Your task to perform on an android device: Clear the shopping cart on newegg.com. Add "usb-c to usb-a" to the cart on newegg.com Image 0: 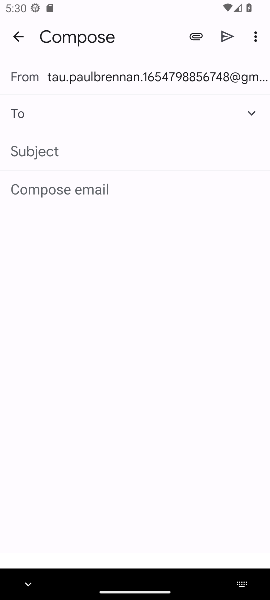
Step 0: press home button
Your task to perform on an android device: Clear the shopping cart on newegg.com. Add "usb-c to usb-a" to the cart on newegg.com Image 1: 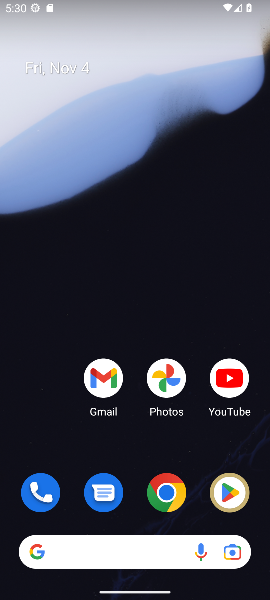
Step 1: drag from (133, 461) to (106, 59)
Your task to perform on an android device: Clear the shopping cart on newegg.com. Add "usb-c to usb-a" to the cart on newegg.com Image 2: 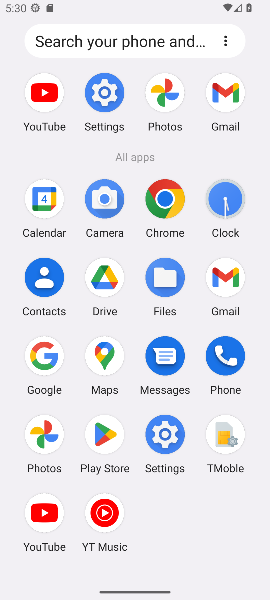
Step 2: click (163, 205)
Your task to perform on an android device: Clear the shopping cart on newegg.com. Add "usb-c to usb-a" to the cart on newegg.com Image 3: 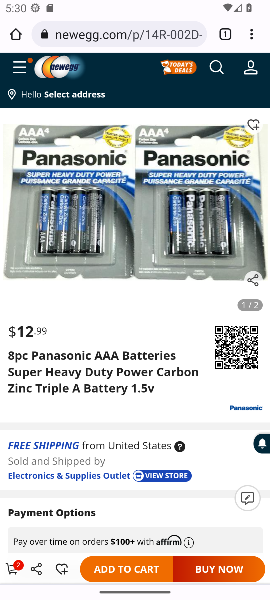
Step 3: click (150, 33)
Your task to perform on an android device: Clear the shopping cart on newegg.com. Add "usb-c to usb-a" to the cart on newegg.com Image 4: 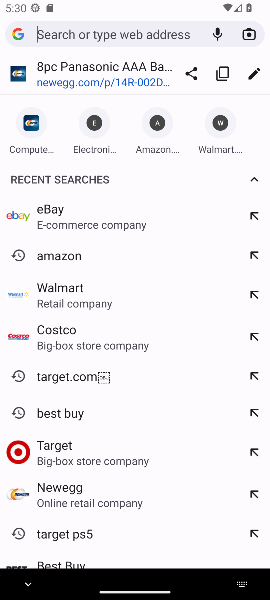
Step 4: type "newegg.com"
Your task to perform on an android device: Clear the shopping cart on newegg.com. Add "usb-c to usb-a" to the cart on newegg.com Image 5: 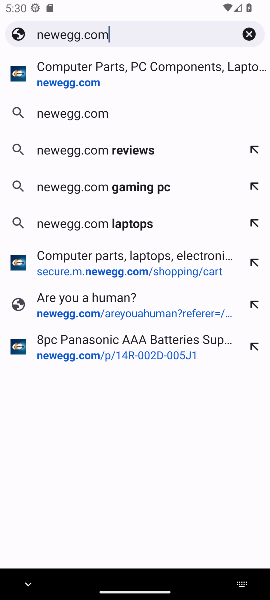
Step 5: press enter
Your task to perform on an android device: Clear the shopping cart on newegg.com. Add "usb-c to usb-a" to the cart on newegg.com Image 6: 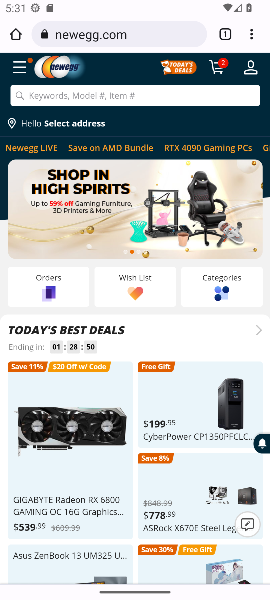
Step 6: click (225, 68)
Your task to perform on an android device: Clear the shopping cart on newegg.com. Add "usb-c to usb-a" to the cart on newegg.com Image 7: 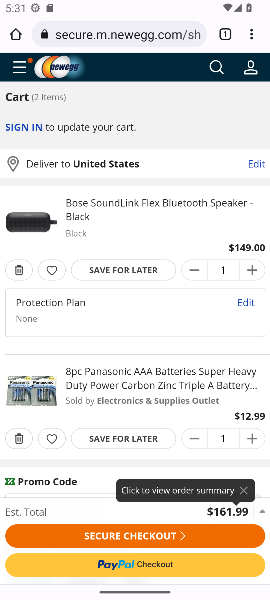
Step 7: click (15, 264)
Your task to perform on an android device: Clear the shopping cart on newegg.com. Add "usb-c to usb-a" to the cart on newegg.com Image 8: 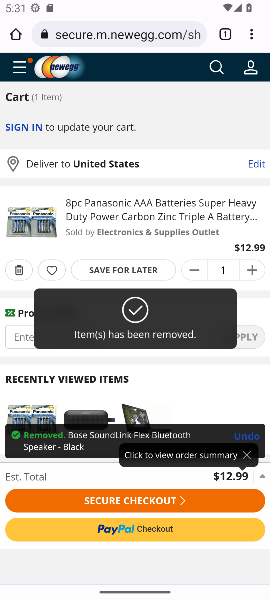
Step 8: click (24, 268)
Your task to perform on an android device: Clear the shopping cart on newegg.com. Add "usb-c to usb-a" to the cart on newegg.com Image 9: 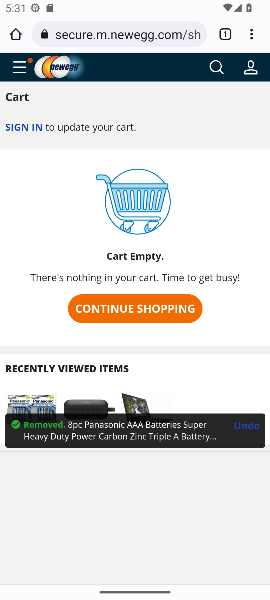
Step 9: click (208, 64)
Your task to perform on an android device: Clear the shopping cart on newegg.com. Add "usb-c to usb-a" to the cart on newegg.com Image 10: 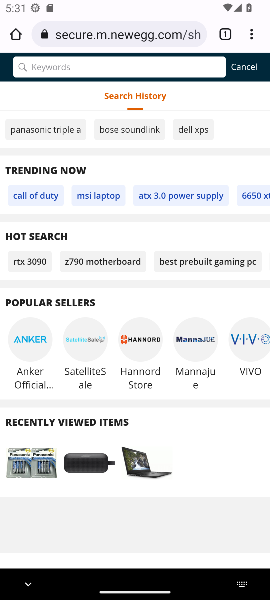
Step 10: type "usb-c to usb-a"
Your task to perform on an android device: Clear the shopping cart on newegg.com. Add "usb-c to usb-a" to the cart on newegg.com Image 11: 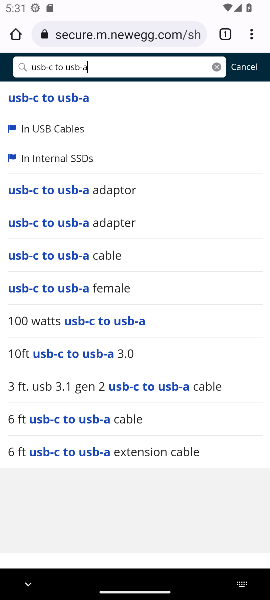
Step 11: press enter
Your task to perform on an android device: Clear the shopping cart on newegg.com. Add "usb-c to usb-a" to the cart on newegg.com Image 12: 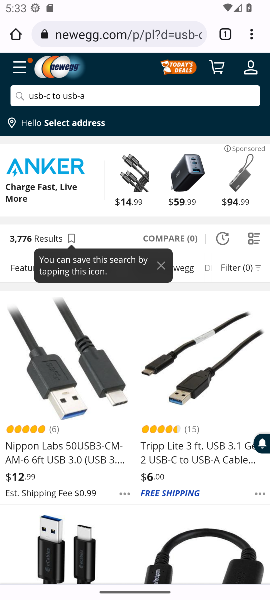
Step 12: drag from (195, 463) to (199, 247)
Your task to perform on an android device: Clear the shopping cart on newegg.com. Add "usb-c to usb-a" to the cart on newegg.com Image 13: 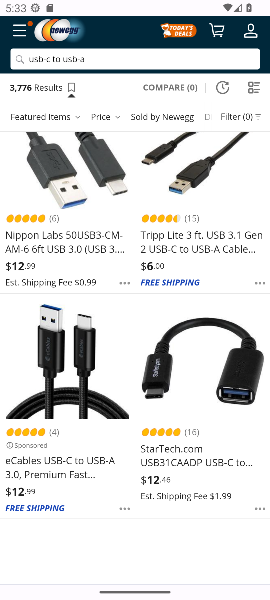
Step 13: click (66, 472)
Your task to perform on an android device: Clear the shopping cart on newegg.com. Add "usb-c to usb-a" to the cart on newegg.com Image 14: 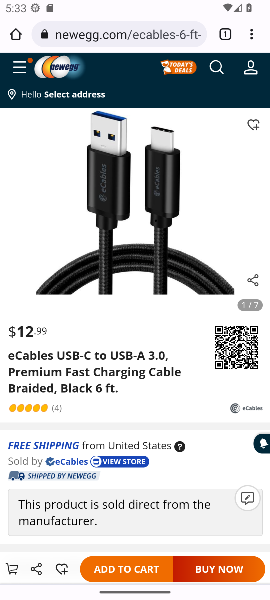
Step 14: press back button
Your task to perform on an android device: Clear the shopping cart on newegg.com. Add "usb-c to usb-a" to the cart on newegg.com Image 15: 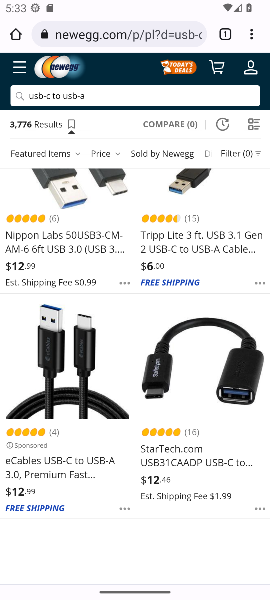
Step 15: drag from (117, 501) to (163, 268)
Your task to perform on an android device: Clear the shopping cart on newegg.com. Add "usb-c to usb-a" to the cart on newegg.com Image 16: 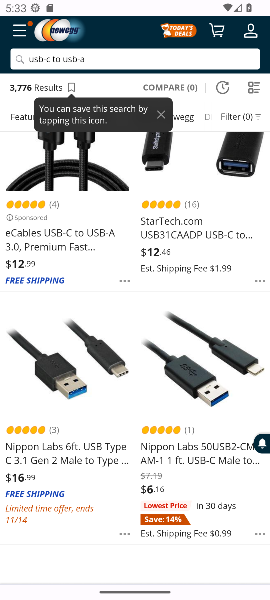
Step 16: click (201, 249)
Your task to perform on an android device: Clear the shopping cart on newegg.com. Add "usb-c to usb-a" to the cart on newegg.com Image 17: 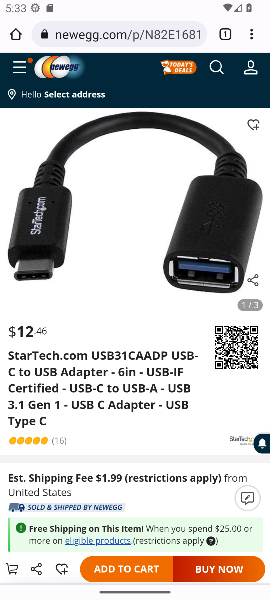
Step 17: click (133, 570)
Your task to perform on an android device: Clear the shopping cart on newegg.com. Add "usb-c to usb-a" to the cart on newegg.com Image 18: 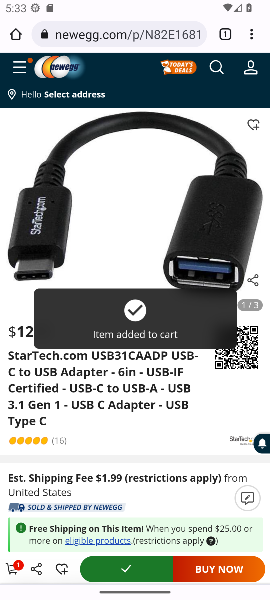
Step 18: task complete